Your task to perform on an android device: Open the calendar and show me this week's events Image 0: 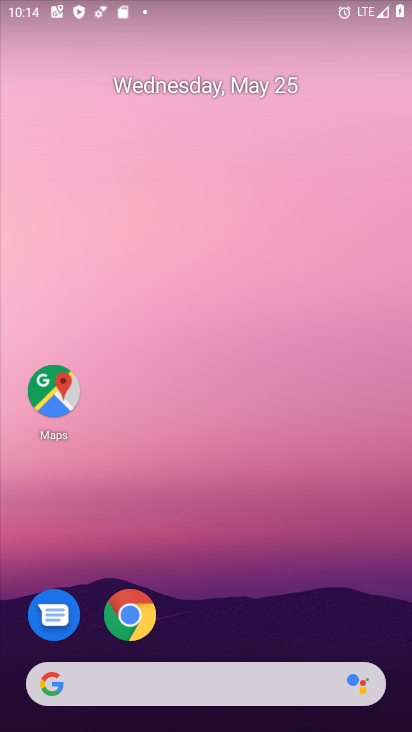
Step 0: drag from (275, 549) to (303, 89)
Your task to perform on an android device: Open the calendar and show me this week's events Image 1: 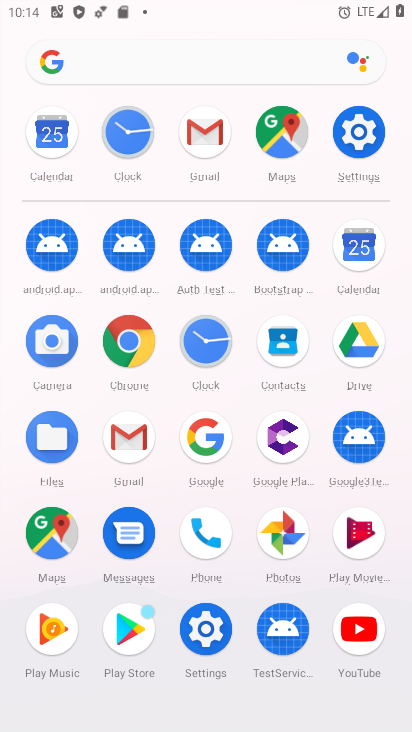
Step 1: click (357, 243)
Your task to perform on an android device: Open the calendar and show me this week's events Image 2: 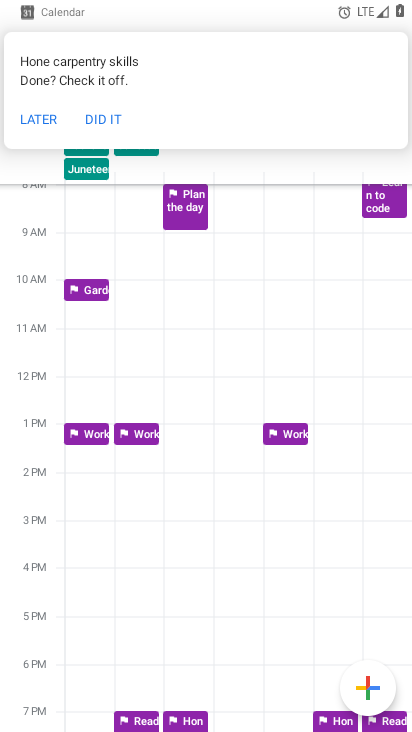
Step 2: task complete